Your task to perform on an android device: delete location history Image 0: 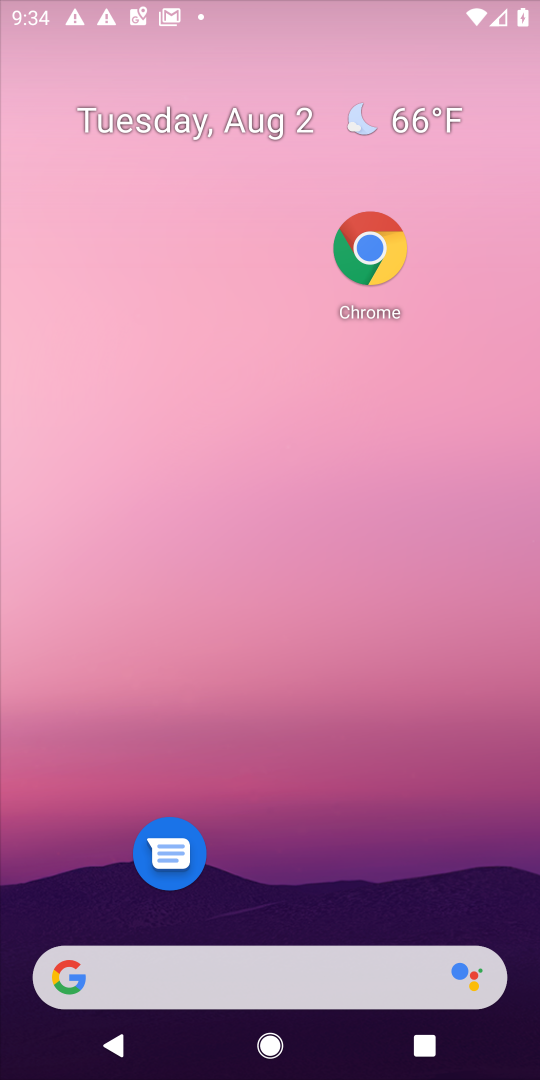
Step 0: drag from (265, 842) to (223, 65)
Your task to perform on an android device: delete location history Image 1: 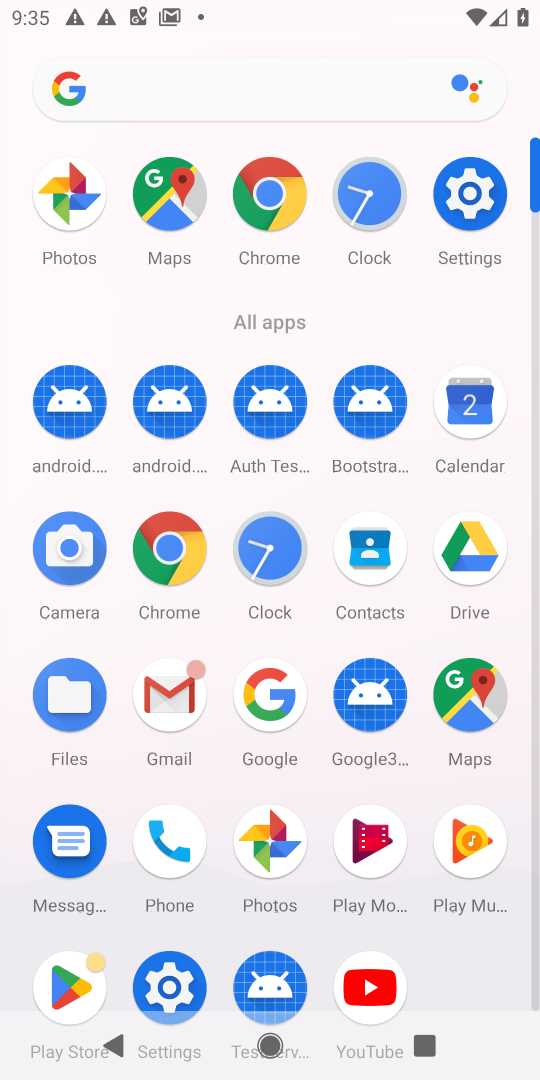
Step 1: click (461, 717)
Your task to perform on an android device: delete location history Image 2: 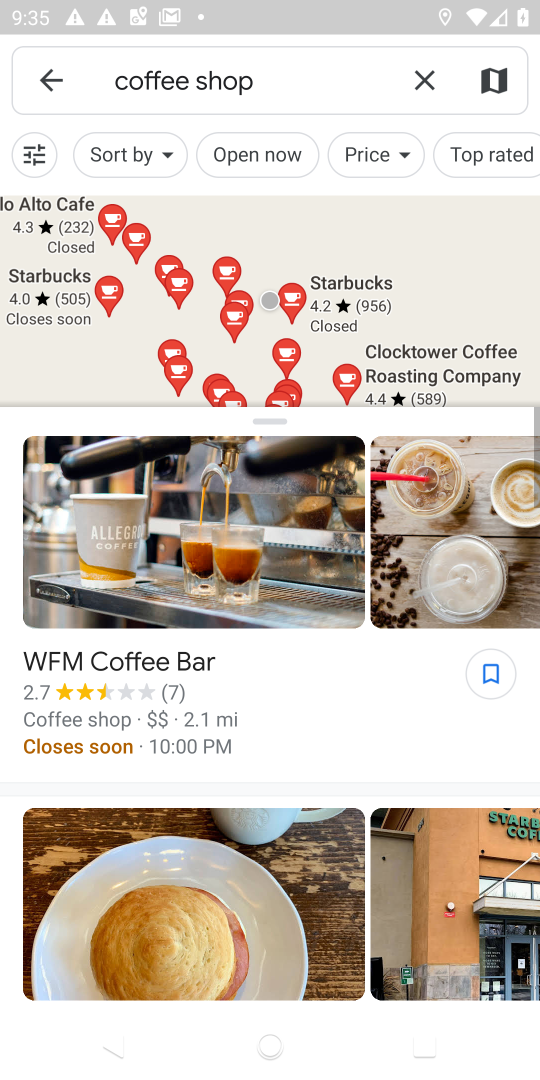
Step 2: click (41, 77)
Your task to perform on an android device: delete location history Image 3: 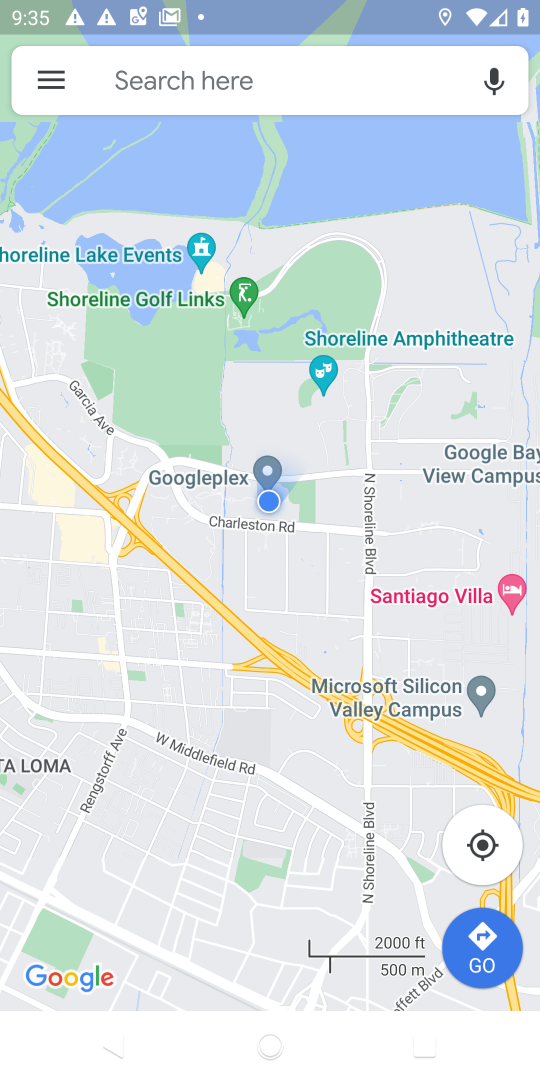
Step 3: drag from (52, 68) to (121, 691)
Your task to perform on an android device: delete location history Image 4: 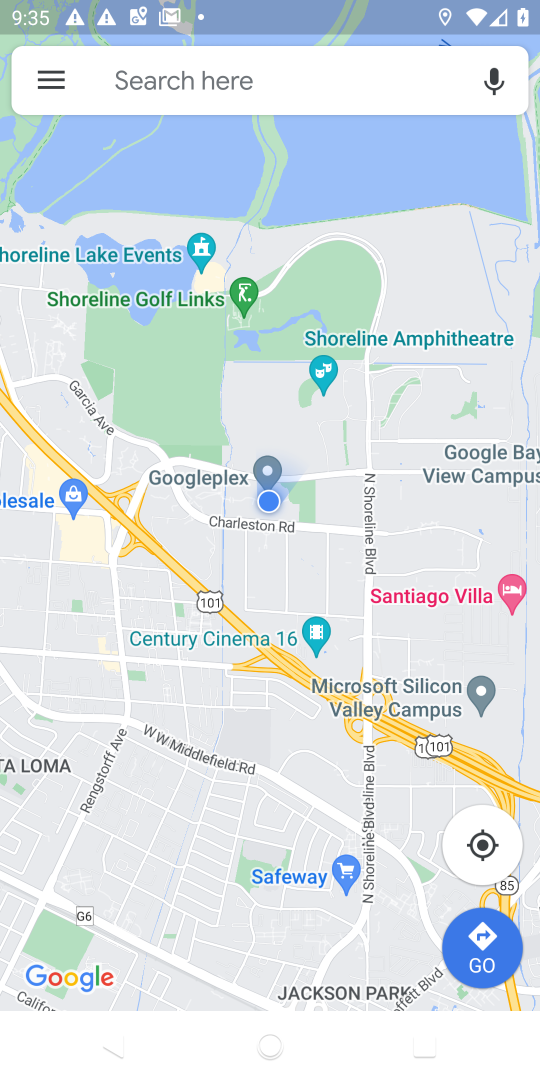
Step 4: click (41, 81)
Your task to perform on an android device: delete location history Image 5: 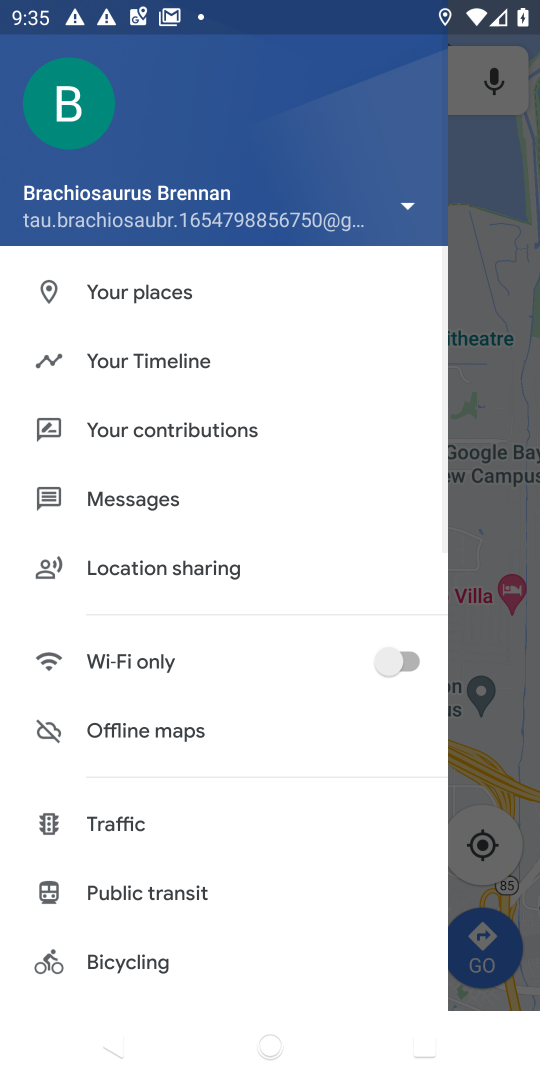
Step 5: click (140, 370)
Your task to perform on an android device: delete location history Image 6: 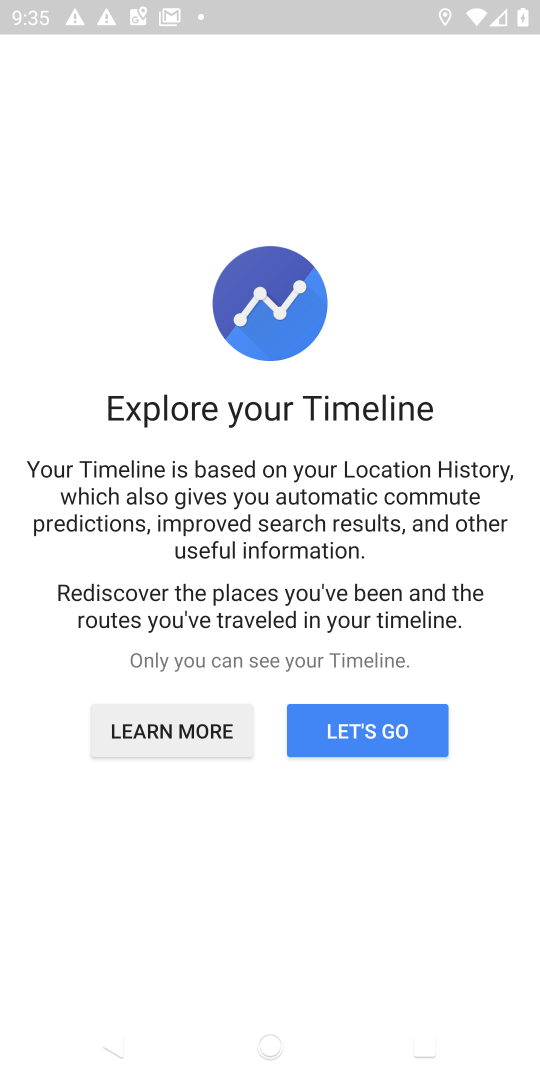
Step 6: click (356, 727)
Your task to perform on an android device: delete location history Image 7: 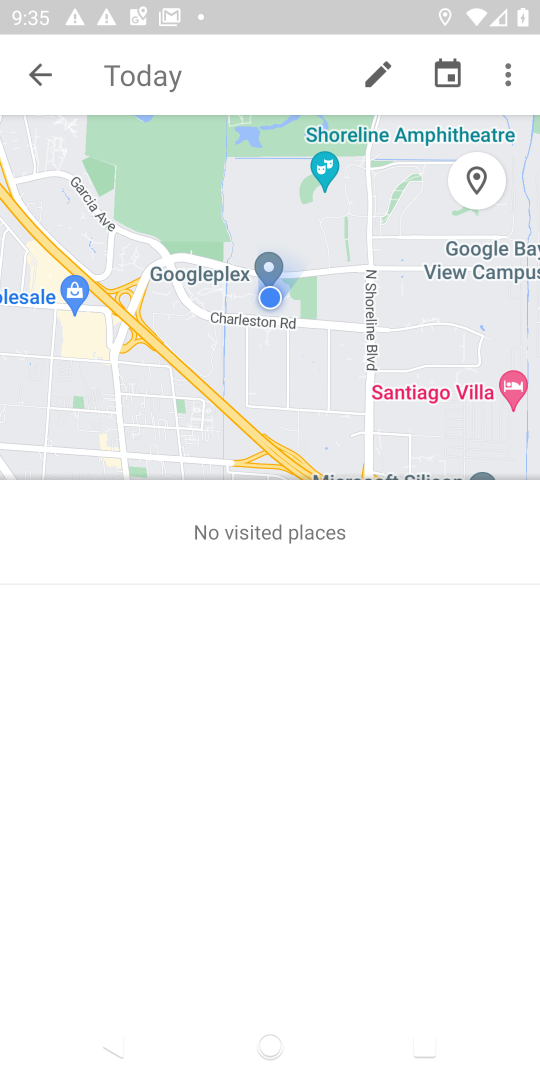
Step 7: drag from (516, 74) to (341, 473)
Your task to perform on an android device: delete location history Image 8: 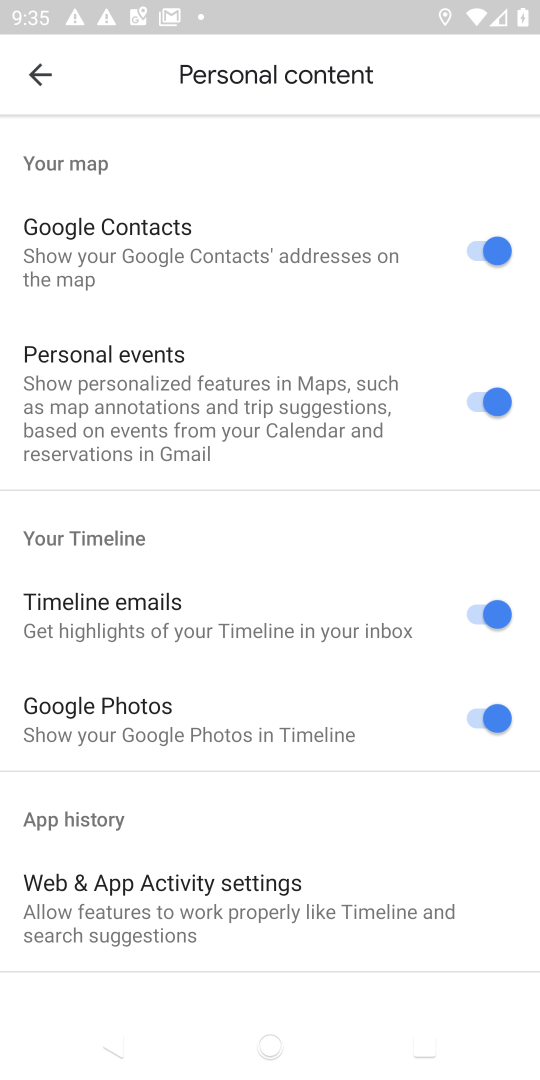
Step 8: drag from (312, 728) to (337, 8)
Your task to perform on an android device: delete location history Image 9: 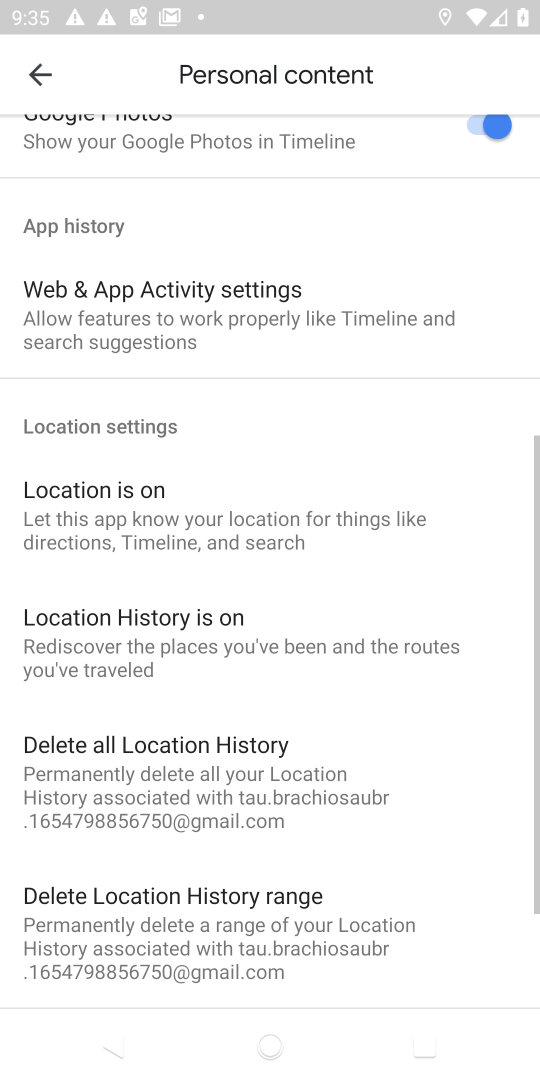
Step 9: click (237, 753)
Your task to perform on an android device: delete location history Image 10: 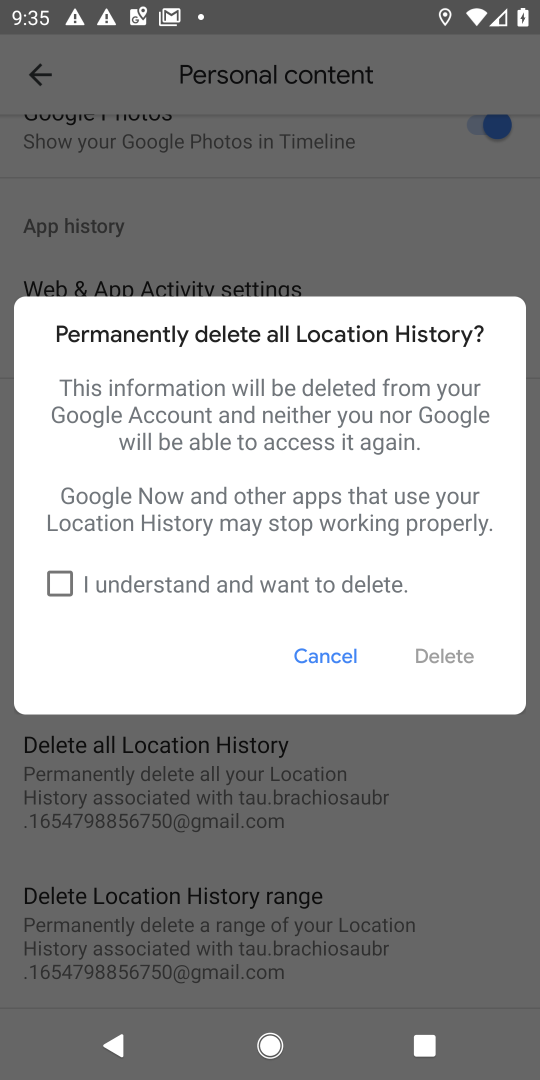
Step 10: click (64, 586)
Your task to perform on an android device: delete location history Image 11: 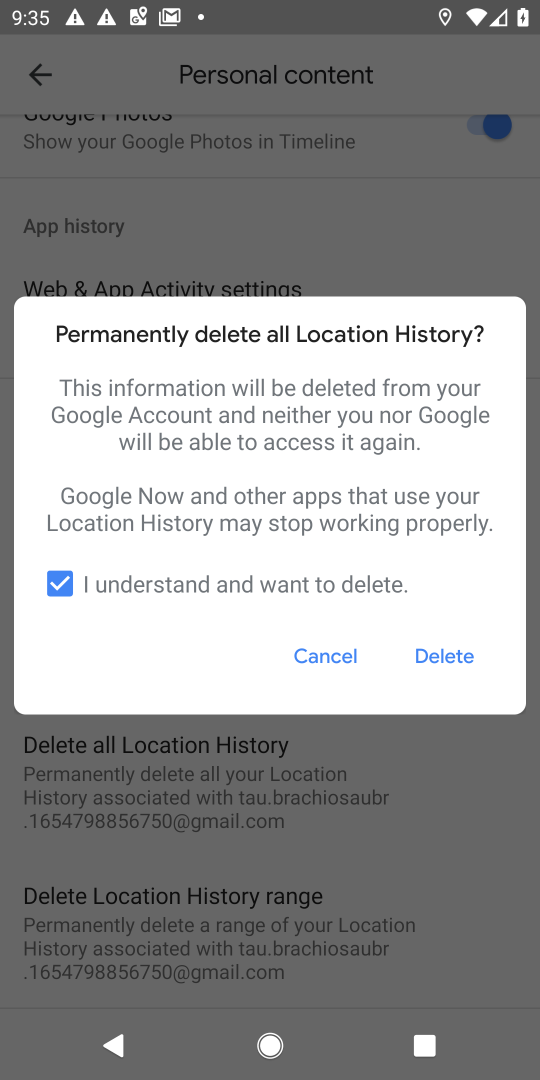
Step 11: click (440, 647)
Your task to perform on an android device: delete location history Image 12: 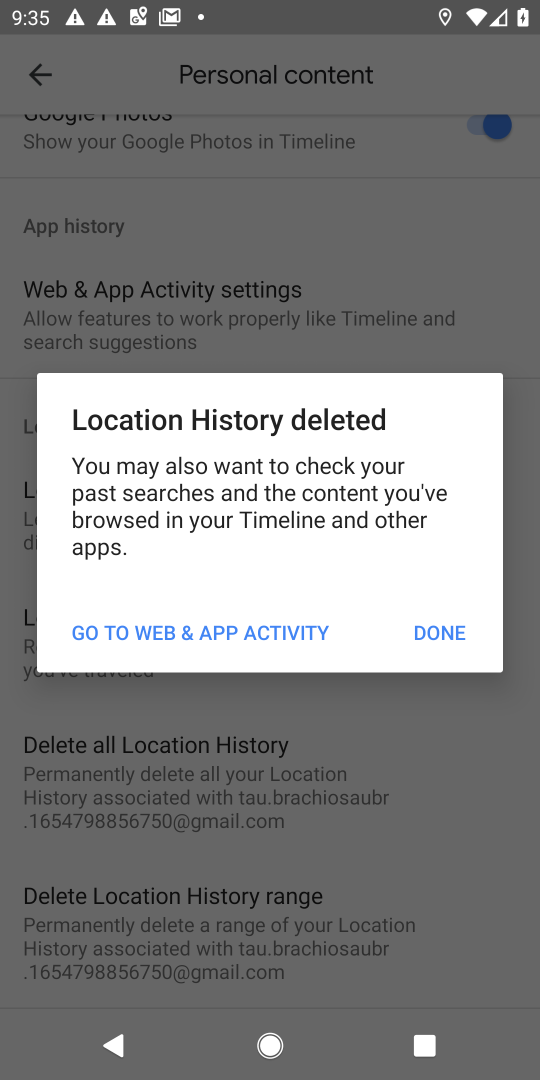
Step 12: click (452, 629)
Your task to perform on an android device: delete location history Image 13: 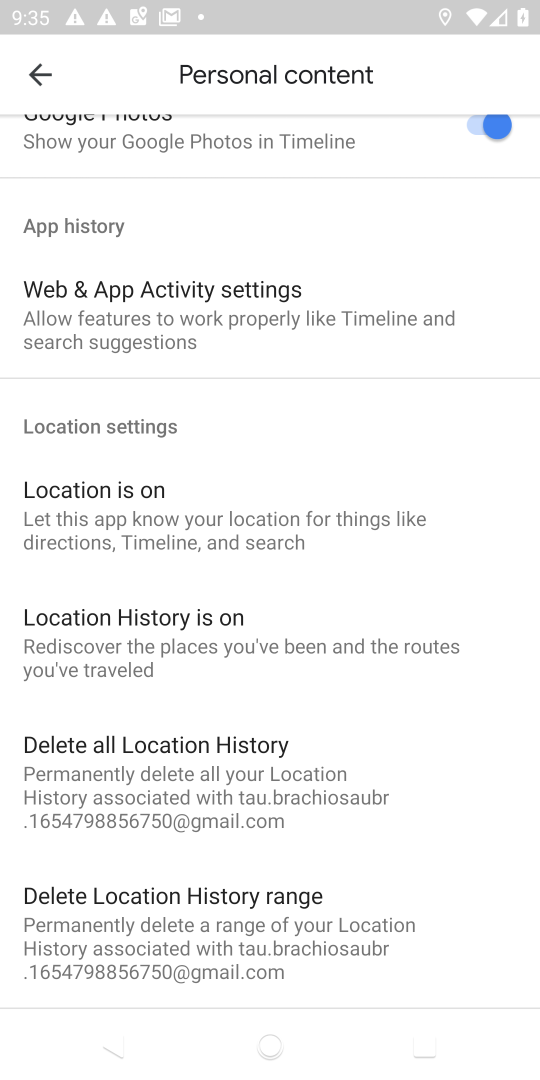
Step 13: task complete